Your task to perform on an android device: see creations saved in the google photos Image 0: 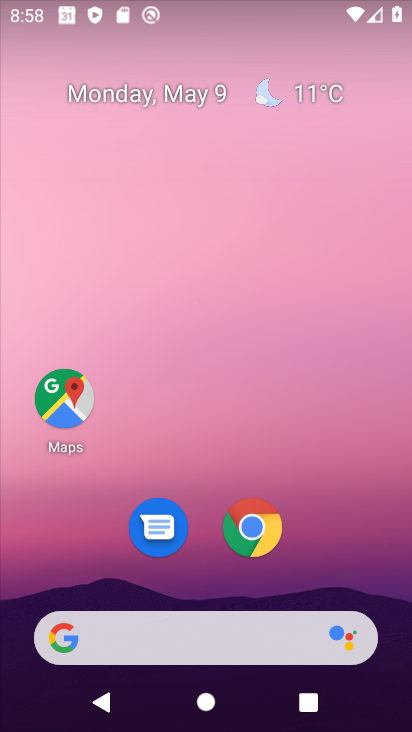
Step 0: drag from (189, 518) to (305, 12)
Your task to perform on an android device: see creations saved in the google photos Image 1: 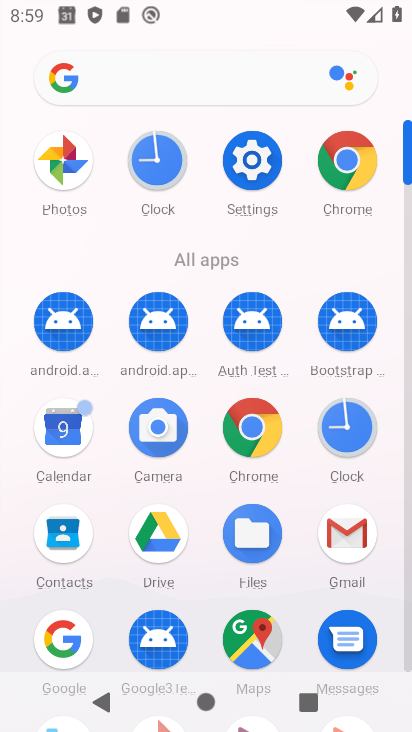
Step 1: drag from (216, 593) to (298, 133)
Your task to perform on an android device: see creations saved in the google photos Image 2: 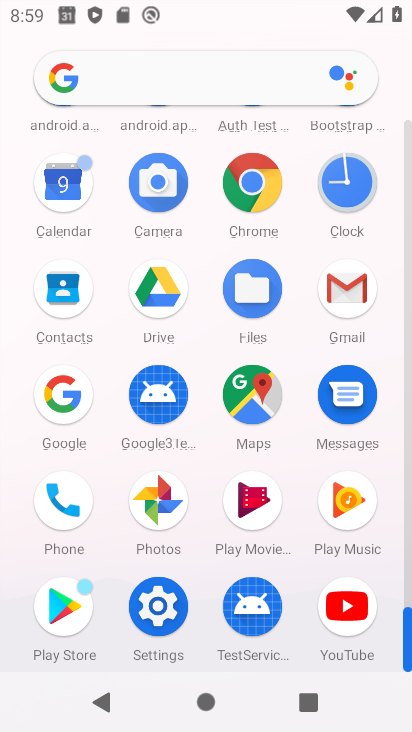
Step 2: click (163, 511)
Your task to perform on an android device: see creations saved in the google photos Image 3: 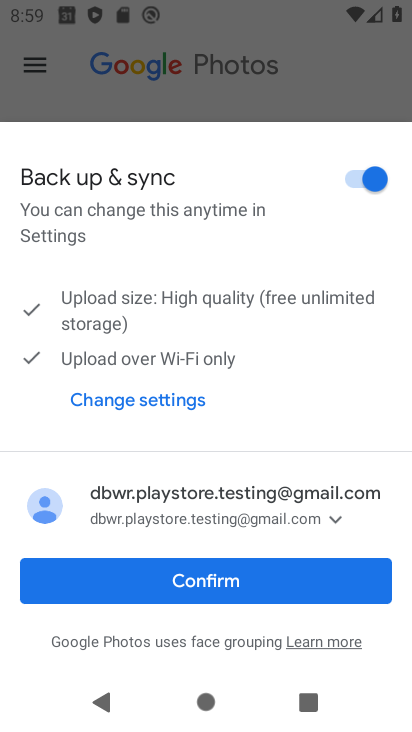
Step 3: click (267, 594)
Your task to perform on an android device: see creations saved in the google photos Image 4: 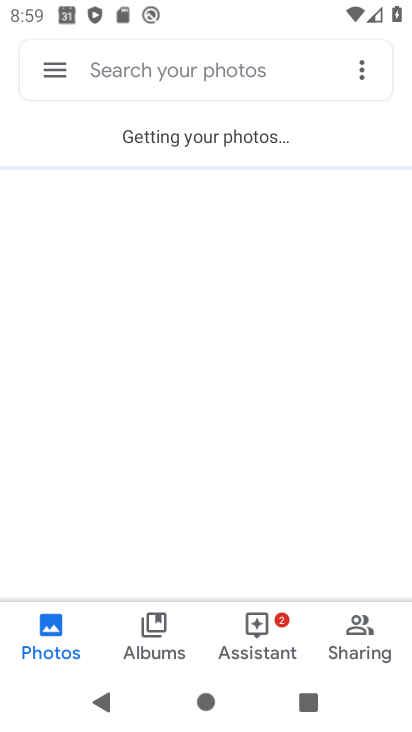
Step 4: click (207, 65)
Your task to perform on an android device: see creations saved in the google photos Image 5: 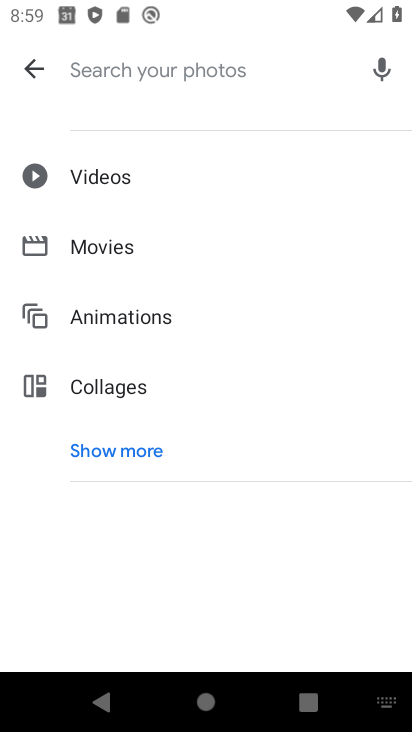
Step 5: type "creations"
Your task to perform on an android device: see creations saved in the google photos Image 6: 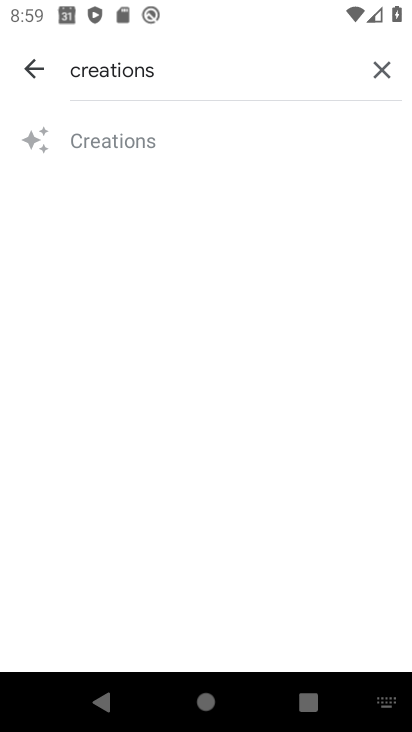
Step 6: click (149, 133)
Your task to perform on an android device: see creations saved in the google photos Image 7: 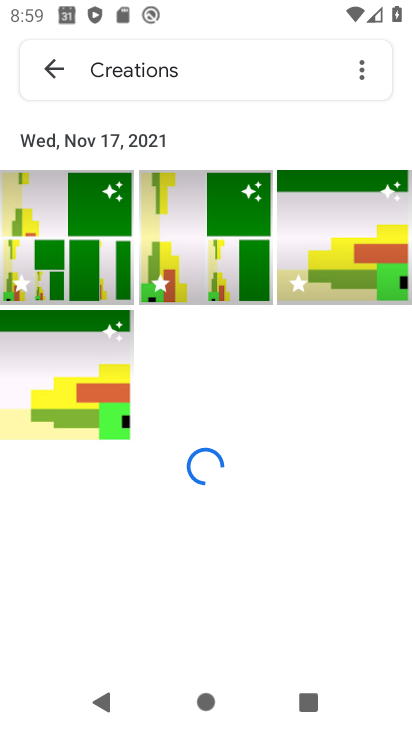
Step 7: click (67, 258)
Your task to perform on an android device: see creations saved in the google photos Image 8: 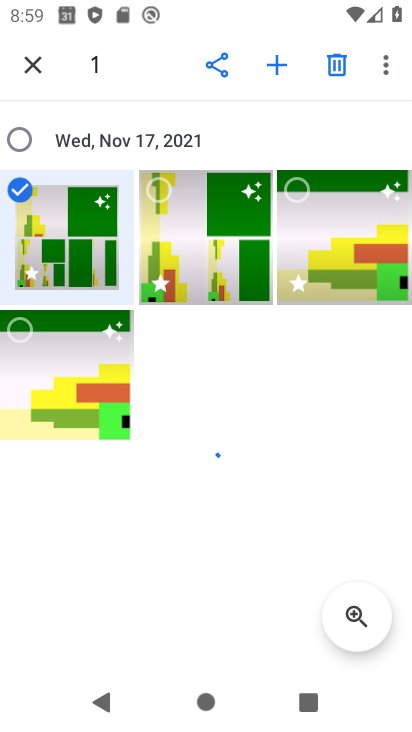
Step 8: click (43, 69)
Your task to perform on an android device: see creations saved in the google photos Image 9: 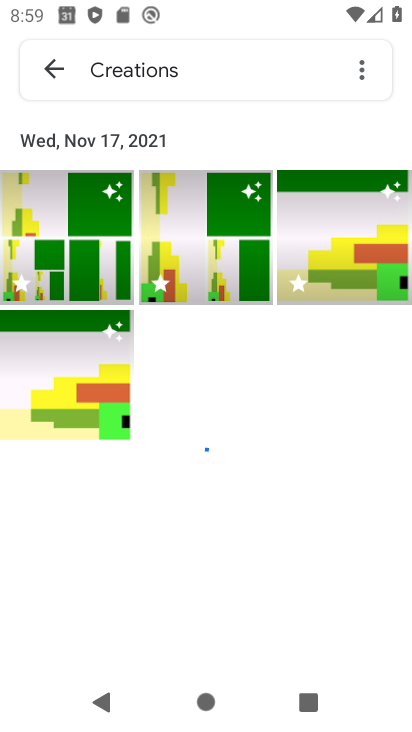
Step 9: task complete